Your task to perform on an android device: Open Google Chrome and open the bookmarks view Image 0: 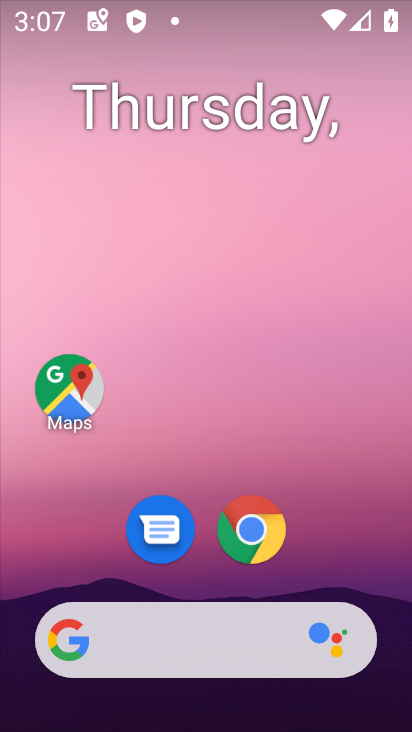
Step 0: click (253, 530)
Your task to perform on an android device: Open Google Chrome and open the bookmarks view Image 1: 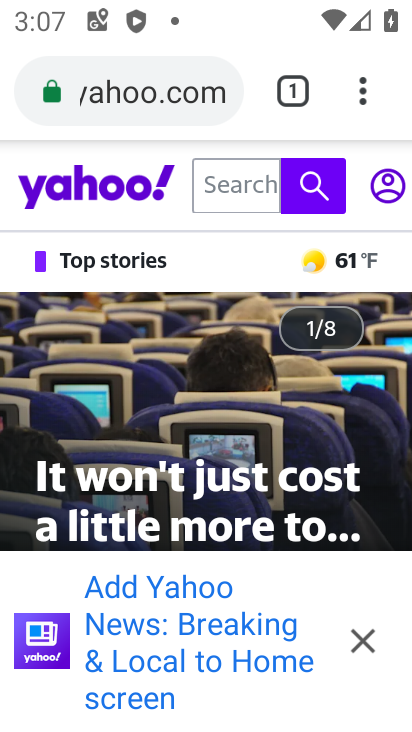
Step 1: click (363, 91)
Your task to perform on an android device: Open Google Chrome and open the bookmarks view Image 2: 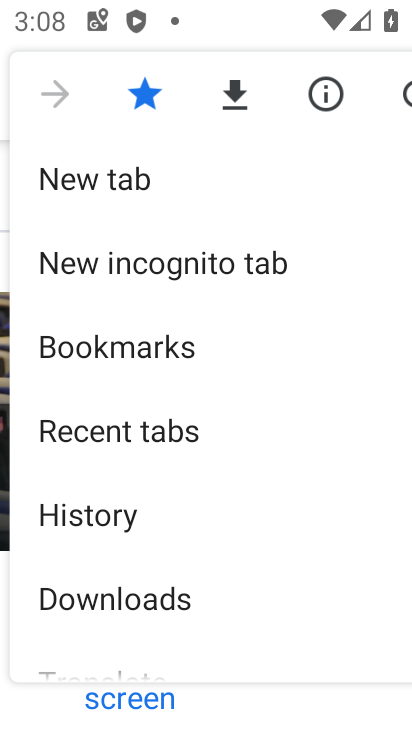
Step 2: click (169, 345)
Your task to perform on an android device: Open Google Chrome and open the bookmarks view Image 3: 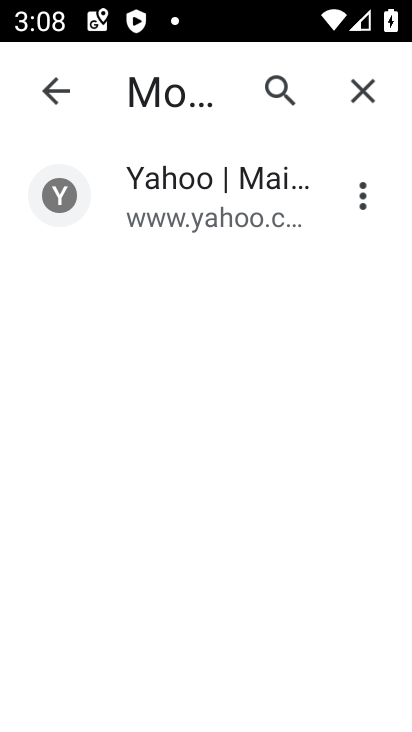
Step 3: click (197, 217)
Your task to perform on an android device: Open Google Chrome and open the bookmarks view Image 4: 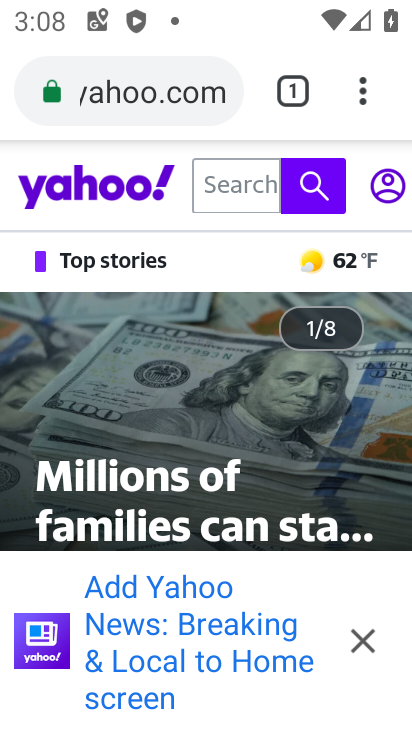
Step 4: task complete